Your task to perform on an android device: Open Wikipedia Image 0: 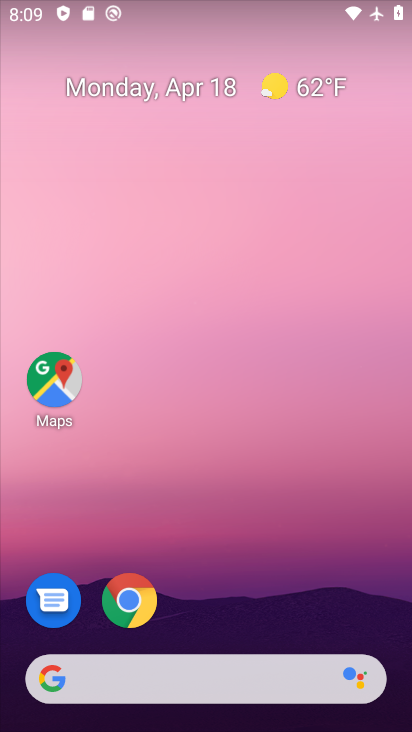
Step 0: click (125, 611)
Your task to perform on an android device: Open Wikipedia Image 1: 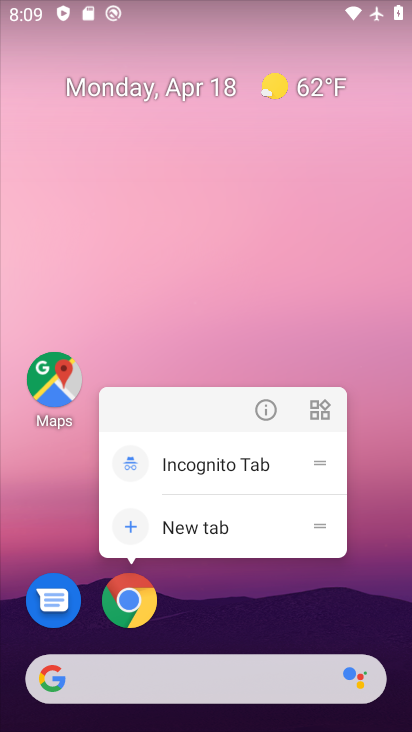
Step 1: click (134, 599)
Your task to perform on an android device: Open Wikipedia Image 2: 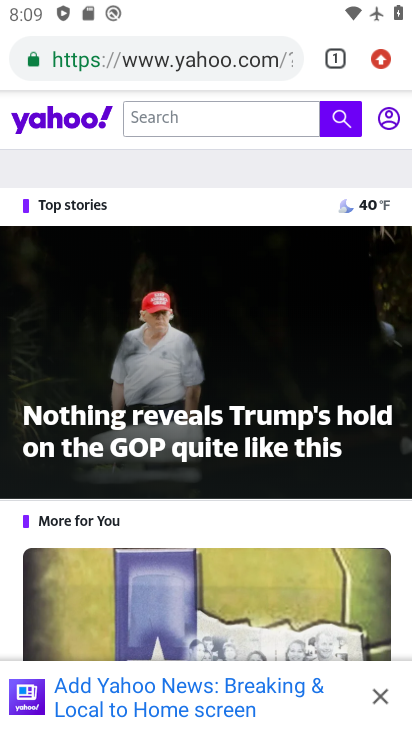
Step 2: click (326, 55)
Your task to perform on an android device: Open Wikipedia Image 3: 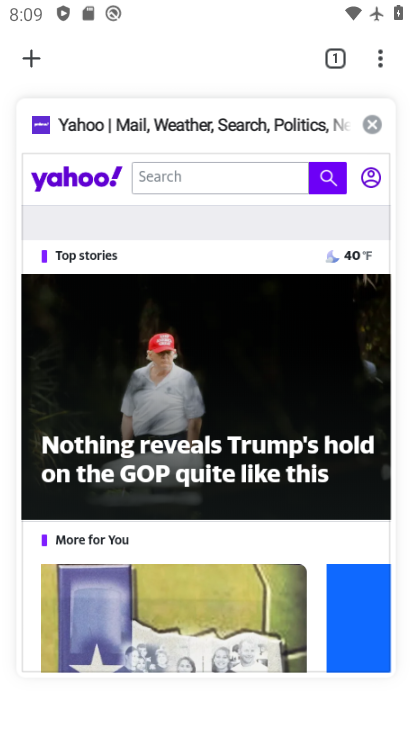
Step 3: click (30, 58)
Your task to perform on an android device: Open Wikipedia Image 4: 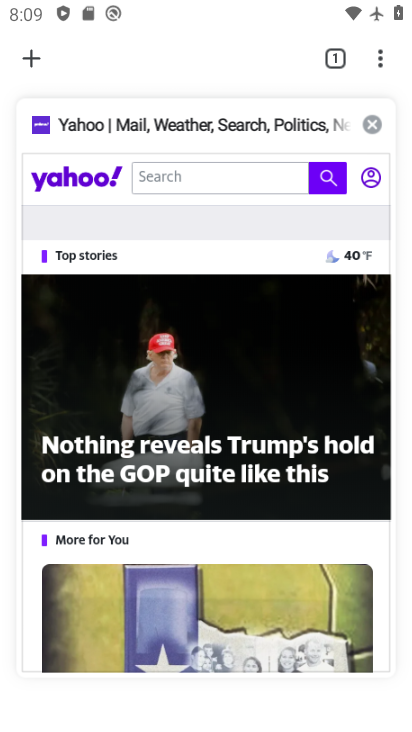
Step 4: click (27, 64)
Your task to perform on an android device: Open Wikipedia Image 5: 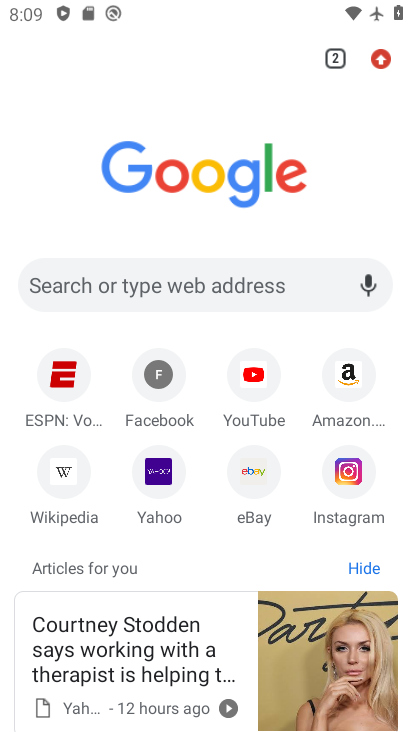
Step 5: click (60, 462)
Your task to perform on an android device: Open Wikipedia Image 6: 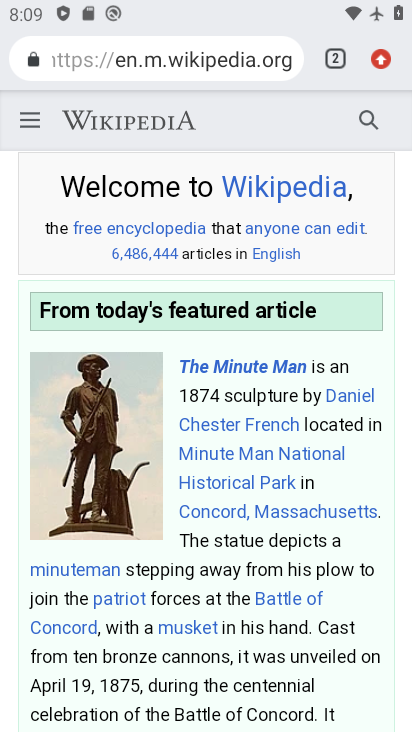
Step 6: task complete